Your task to perform on an android device: Open the calendar and show me this week's events Image 0: 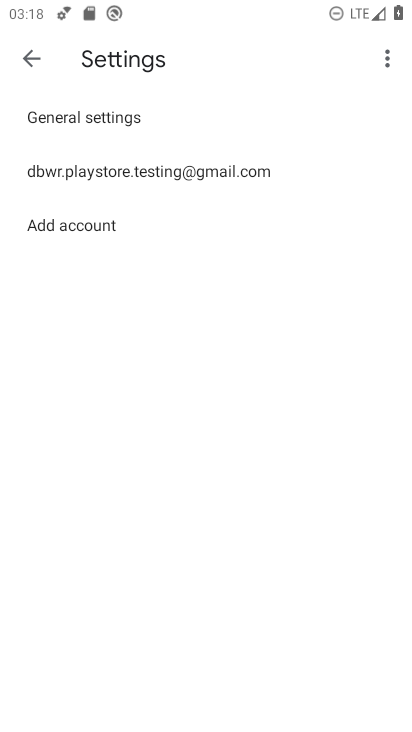
Step 0: press home button
Your task to perform on an android device: Open the calendar and show me this week's events Image 1: 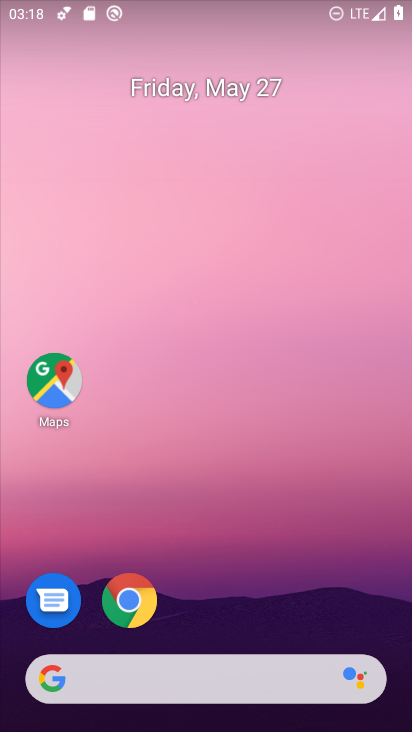
Step 1: drag from (197, 727) to (209, 21)
Your task to perform on an android device: Open the calendar and show me this week's events Image 2: 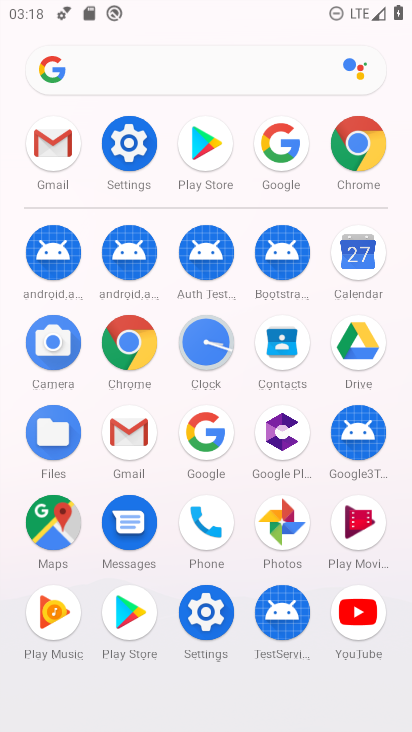
Step 2: click (359, 254)
Your task to perform on an android device: Open the calendar and show me this week's events Image 3: 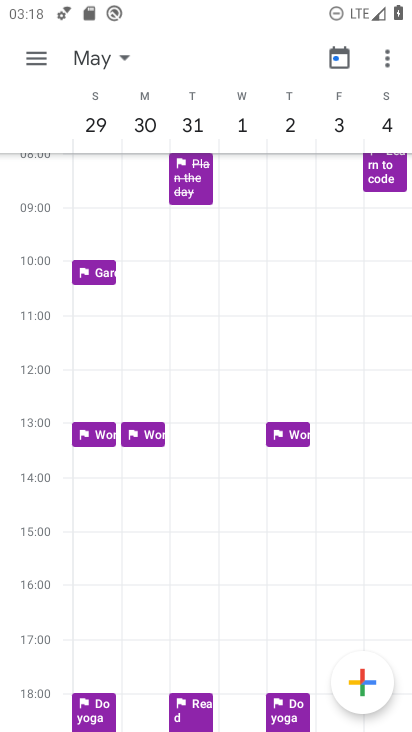
Step 3: task complete